Your task to perform on an android device: empty trash in the gmail app Image 0: 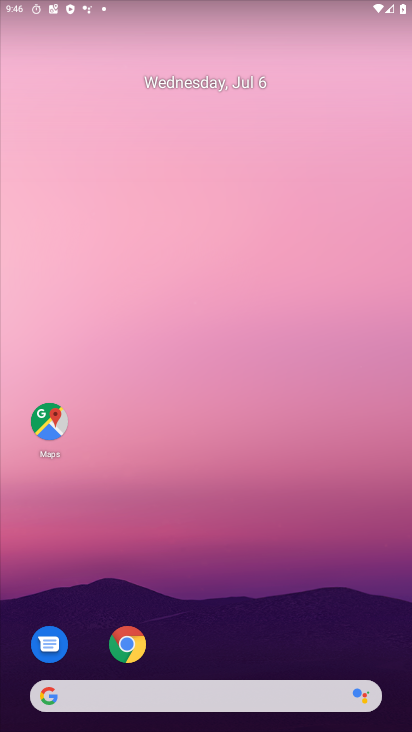
Step 0: click (244, 103)
Your task to perform on an android device: empty trash in the gmail app Image 1: 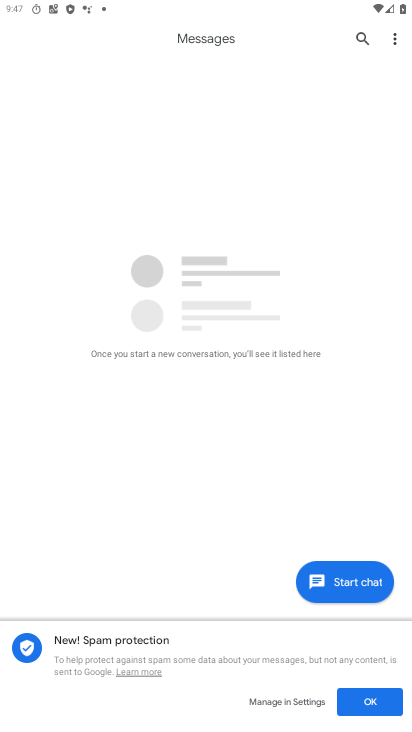
Step 1: press back button
Your task to perform on an android device: empty trash in the gmail app Image 2: 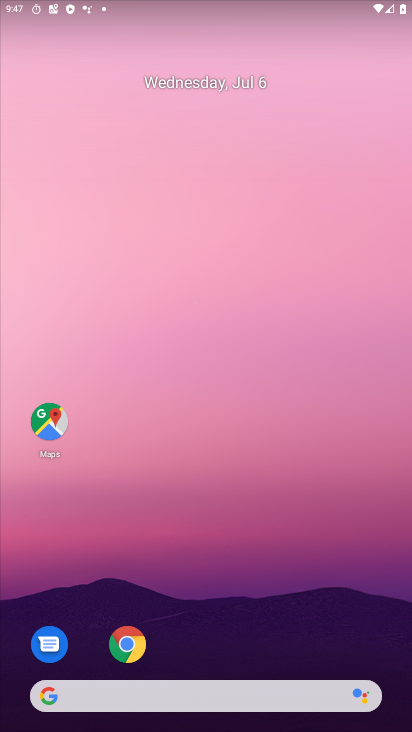
Step 2: drag from (261, 714) to (175, 85)
Your task to perform on an android device: empty trash in the gmail app Image 3: 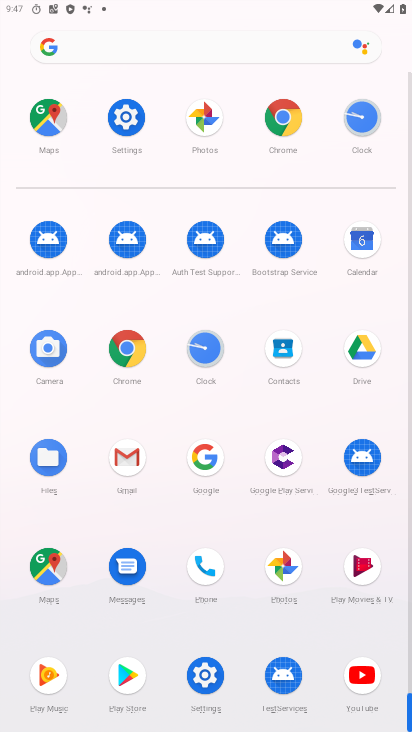
Step 3: click (127, 471)
Your task to perform on an android device: empty trash in the gmail app Image 4: 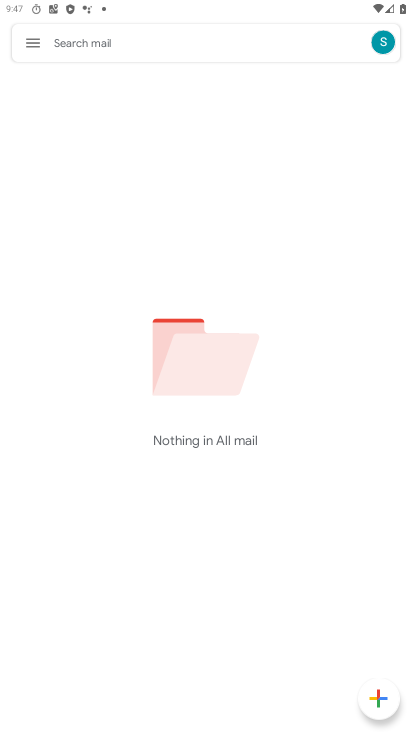
Step 4: click (40, 47)
Your task to perform on an android device: empty trash in the gmail app Image 5: 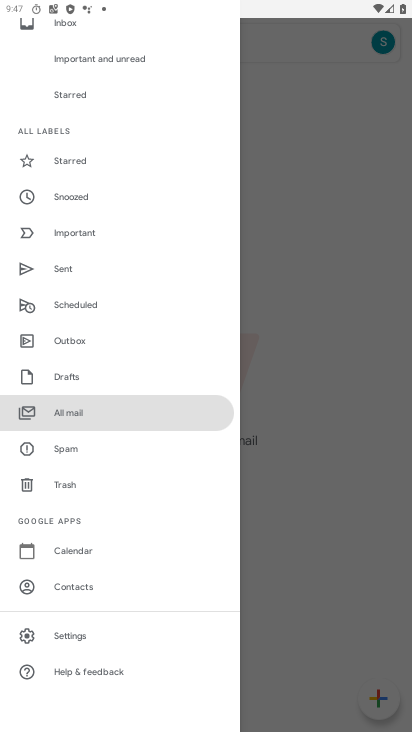
Step 5: drag from (89, 193) to (146, 605)
Your task to perform on an android device: empty trash in the gmail app Image 6: 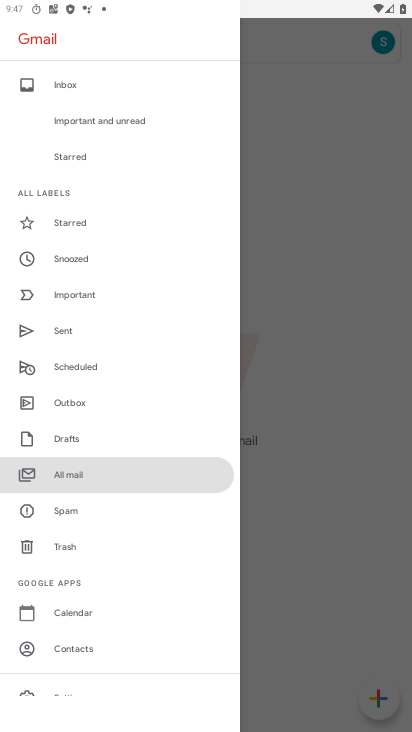
Step 6: drag from (108, 175) to (145, 593)
Your task to perform on an android device: empty trash in the gmail app Image 7: 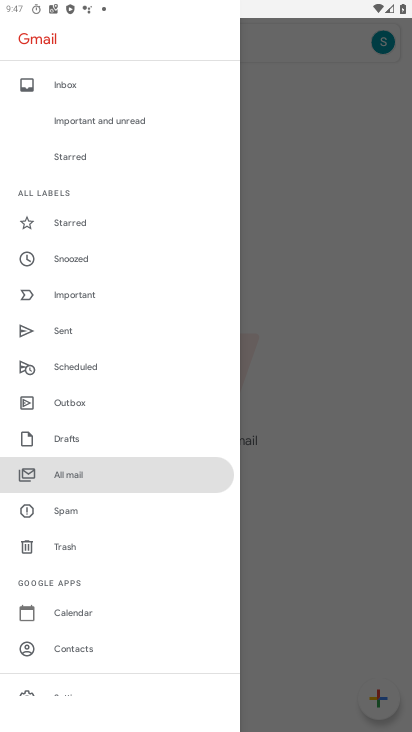
Step 7: click (66, 551)
Your task to perform on an android device: empty trash in the gmail app Image 8: 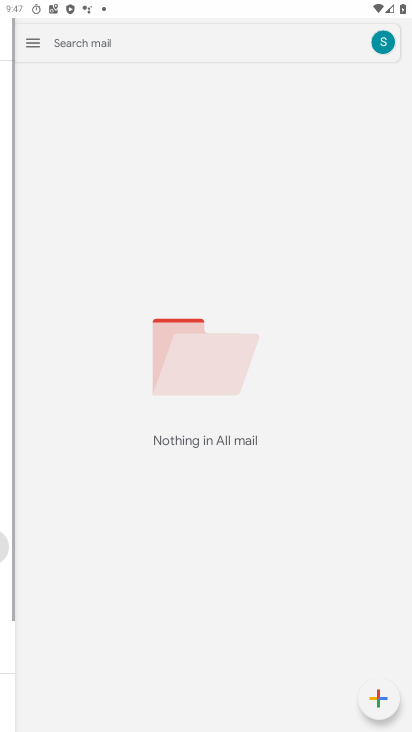
Step 8: click (63, 544)
Your task to perform on an android device: empty trash in the gmail app Image 9: 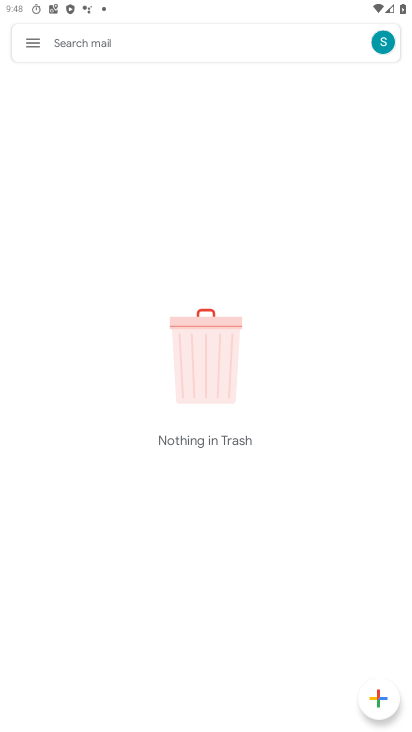
Step 9: press back button
Your task to perform on an android device: empty trash in the gmail app Image 10: 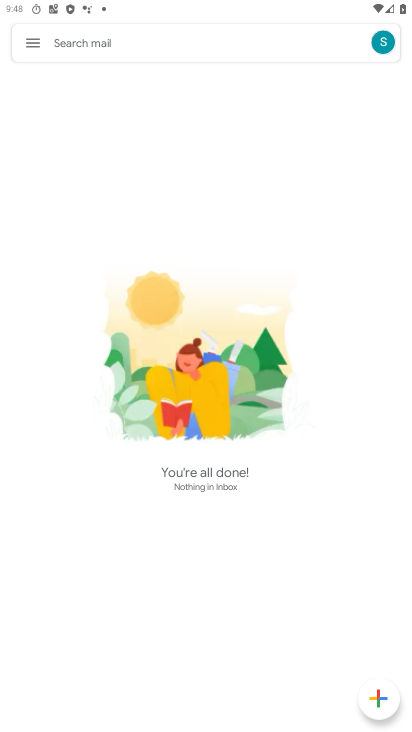
Step 10: press home button
Your task to perform on an android device: empty trash in the gmail app Image 11: 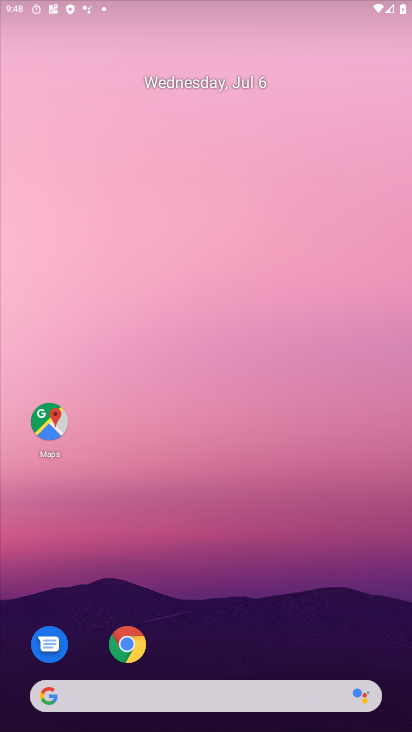
Step 11: drag from (322, 681) to (158, 153)
Your task to perform on an android device: empty trash in the gmail app Image 12: 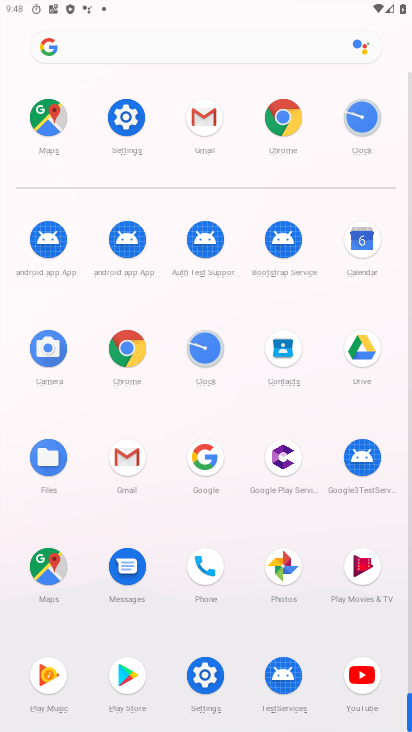
Step 12: click (123, 461)
Your task to perform on an android device: empty trash in the gmail app Image 13: 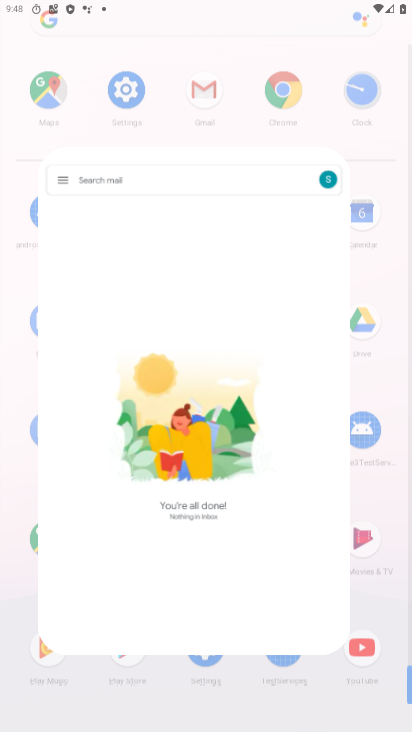
Step 13: click (123, 457)
Your task to perform on an android device: empty trash in the gmail app Image 14: 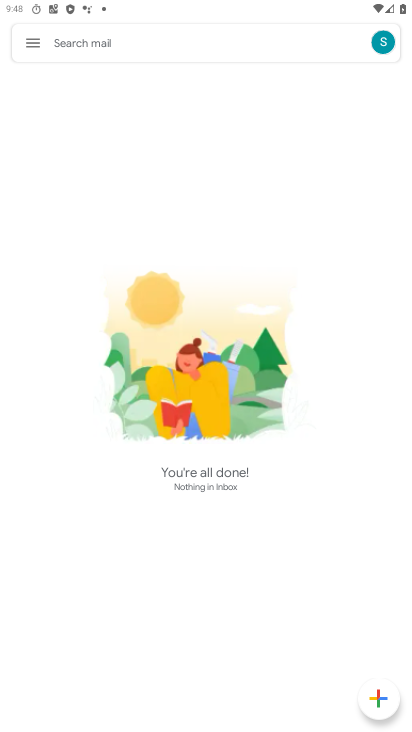
Step 14: click (38, 46)
Your task to perform on an android device: empty trash in the gmail app Image 15: 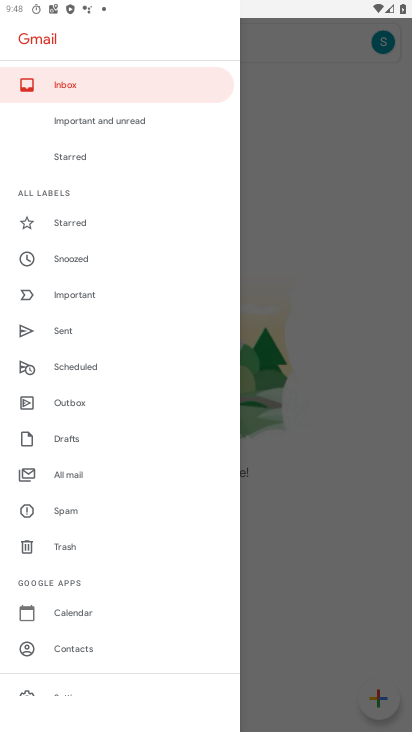
Step 15: drag from (104, 619) to (80, 254)
Your task to perform on an android device: empty trash in the gmail app Image 16: 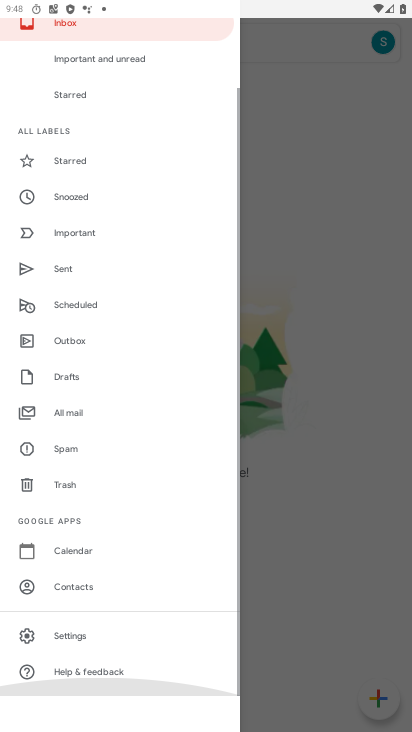
Step 16: drag from (154, 633) to (134, 239)
Your task to perform on an android device: empty trash in the gmail app Image 17: 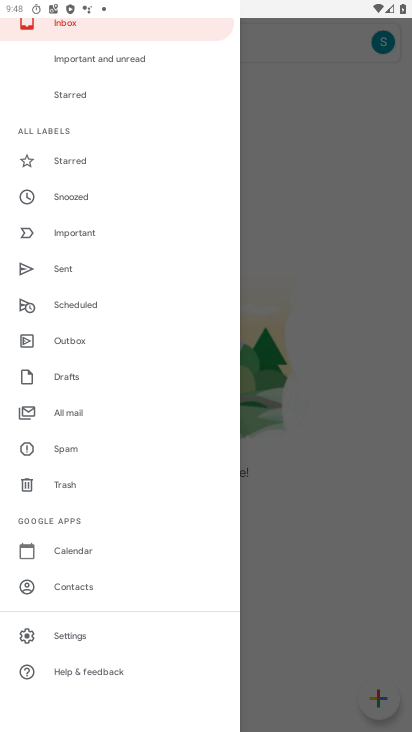
Step 17: click (67, 483)
Your task to perform on an android device: empty trash in the gmail app Image 18: 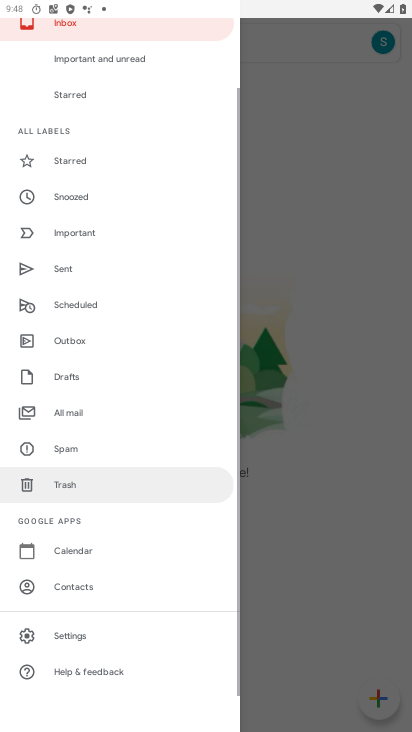
Step 18: click (67, 483)
Your task to perform on an android device: empty trash in the gmail app Image 19: 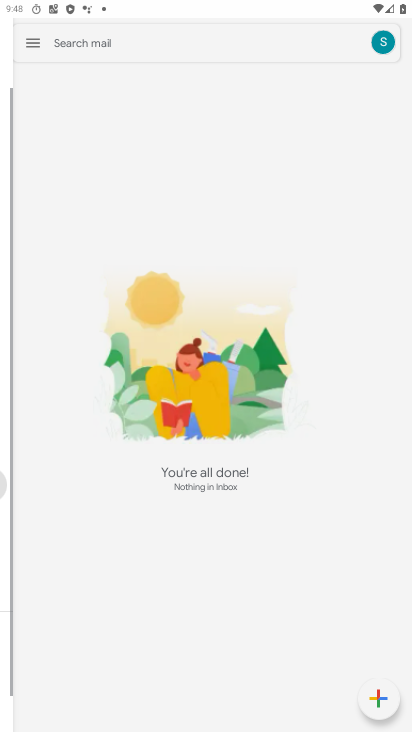
Step 19: click (67, 483)
Your task to perform on an android device: empty trash in the gmail app Image 20: 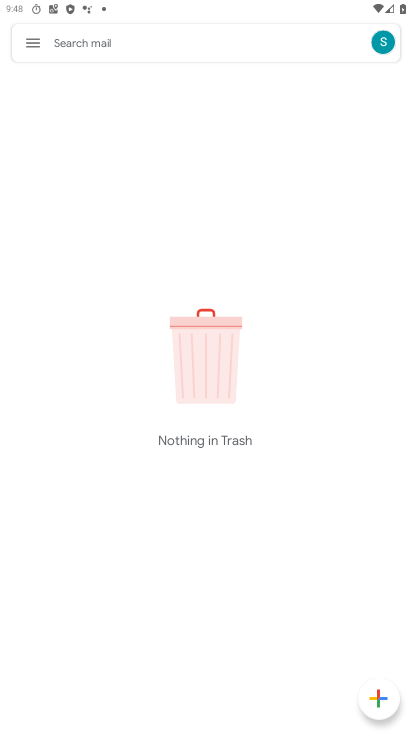
Step 20: task complete